Your task to perform on an android device: Search for Mexican restaurants on Maps Image 0: 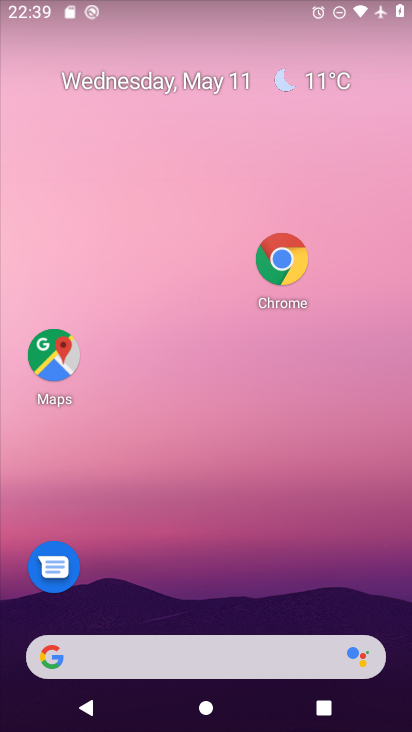
Step 0: press home button
Your task to perform on an android device: Search for Mexican restaurants on Maps Image 1: 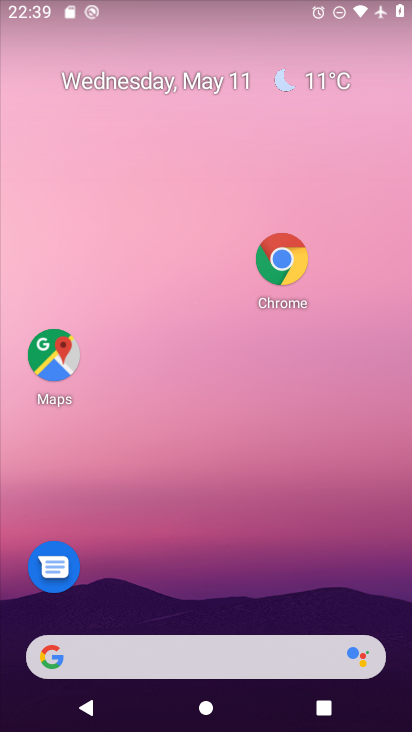
Step 1: click (54, 363)
Your task to perform on an android device: Search for Mexican restaurants on Maps Image 2: 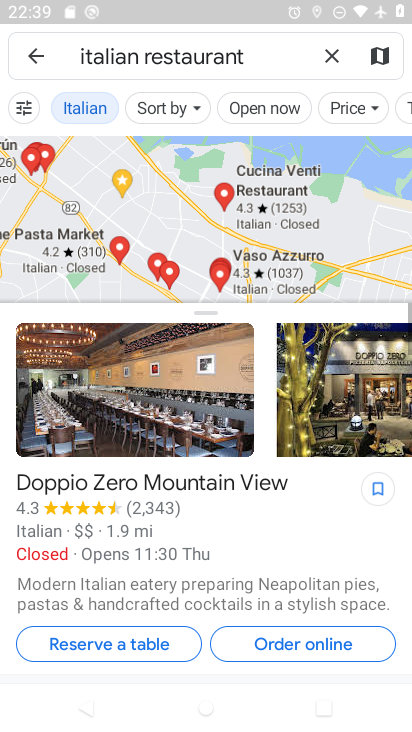
Step 2: click (336, 58)
Your task to perform on an android device: Search for Mexican restaurants on Maps Image 3: 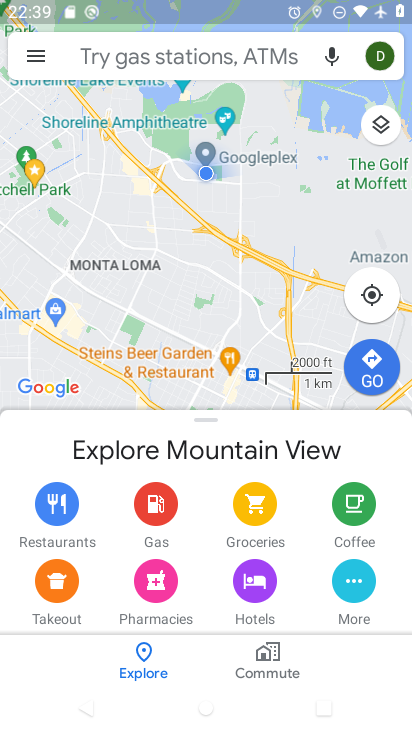
Step 3: click (238, 65)
Your task to perform on an android device: Search for Mexican restaurants on Maps Image 4: 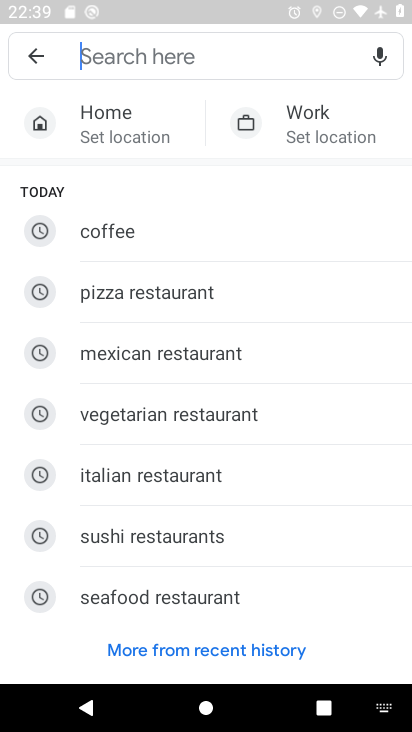
Step 4: click (187, 357)
Your task to perform on an android device: Search for Mexican restaurants on Maps Image 5: 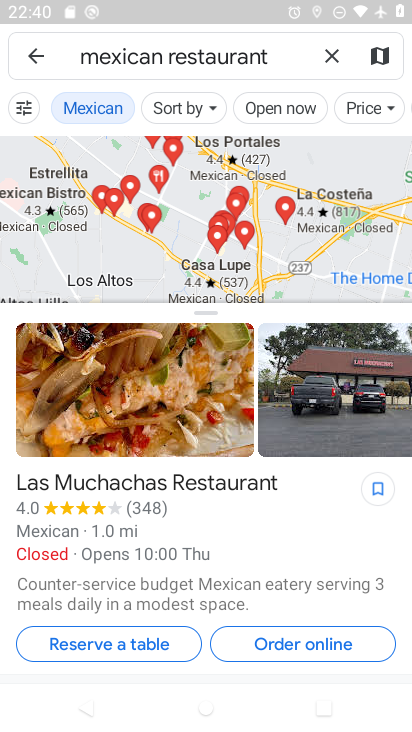
Step 5: task complete